Your task to perform on an android device: turn on translation in the chrome app Image 0: 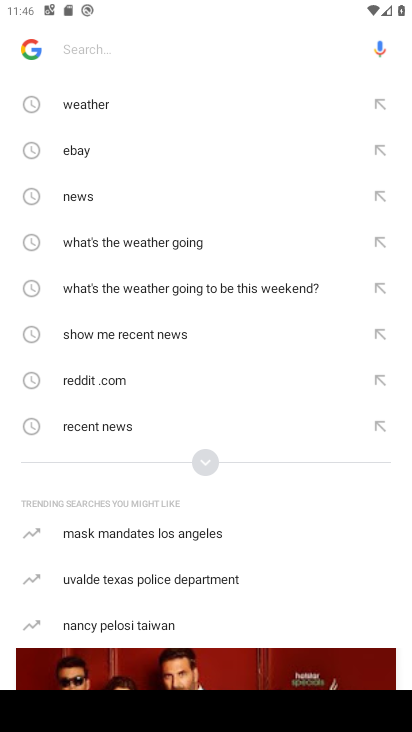
Step 0: press home button
Your task to perform on an android device: turn on translation in the chrome app Image 1: 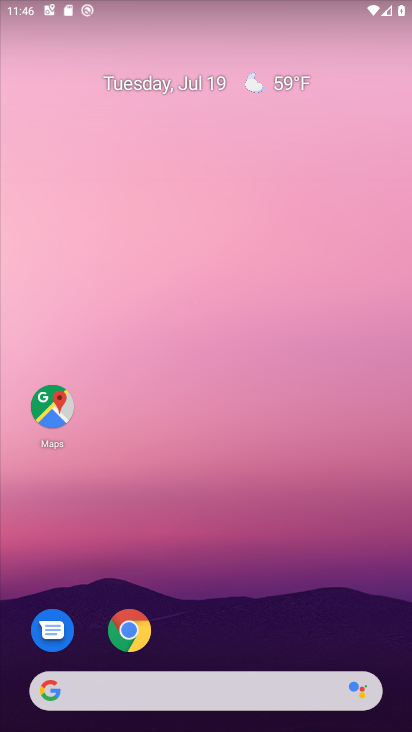
Step 1: click (131, 634)
Your task to perform on an android device: turn on translation in the chrome app Image 2: 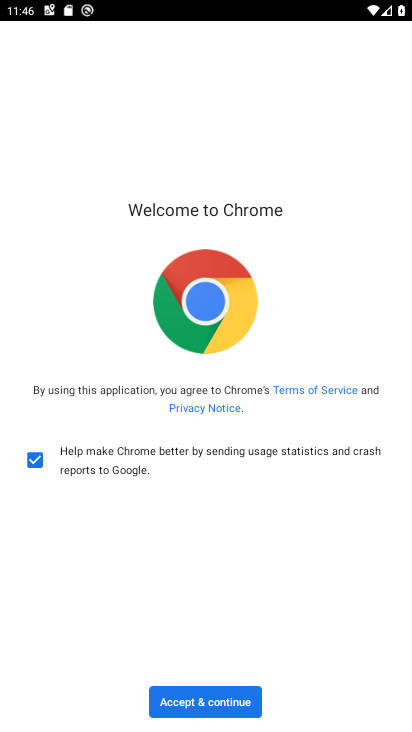
Step 2: click (206, 702)
Your task to perform on an android device: turn on translation in the chrome app Image 3: 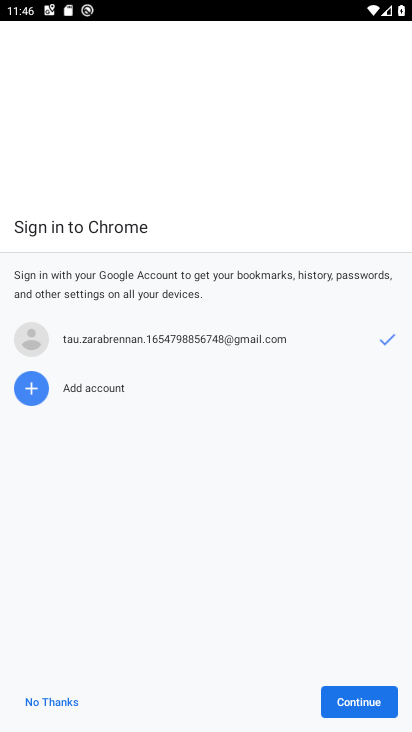
Step 3: click (366, 703)
Your task to perform on an android device: turn on translation in the chrome app Image 4: 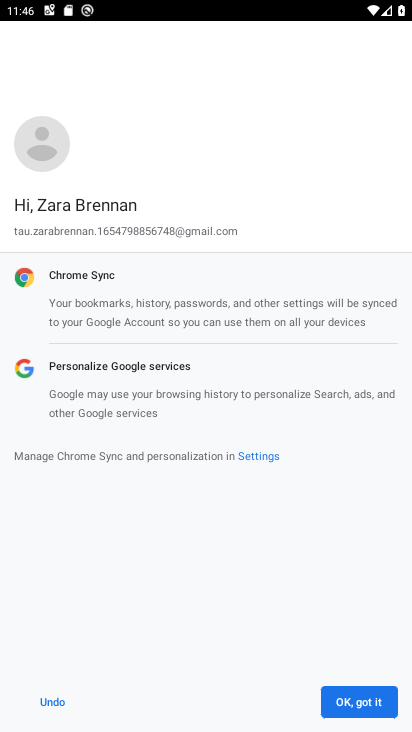
Step 4: click (366, 703)
Your task to perform on an android device: turn on translation in the chrome app Image 5: 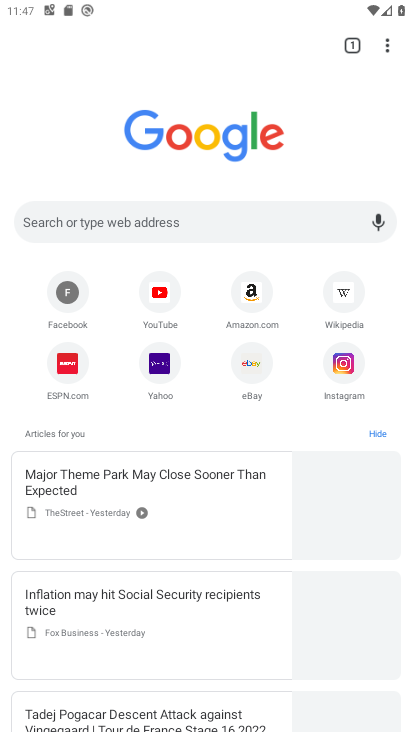
Step 5: click (385, 49)
Your task to perform on an android device: turn on translation in the chrome app Image 6: 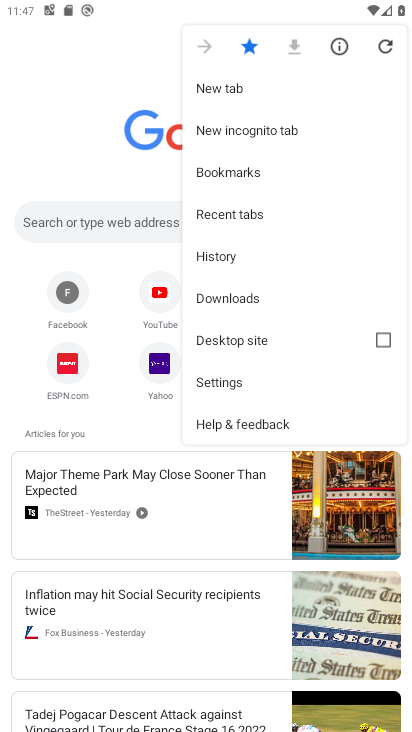
Step 6: click (213, 377)
Your task to perform on an android device: turn on translation in the chrome app Image 7: 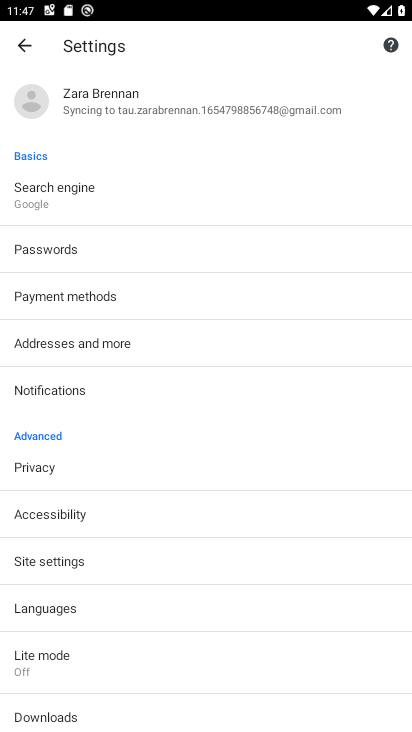
Step 7: click (85, 612)
Your task to perform on an android device: turn on translation in the chrome app Image 8: 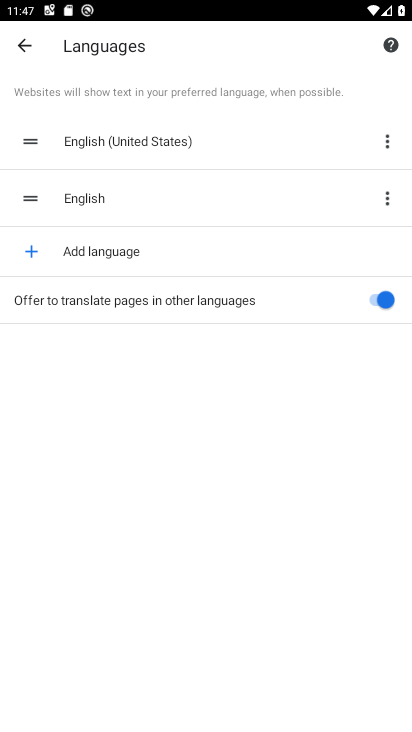
Step 8: task complete